Your task to perform on an android device: move a message to another label in the gmail app Image 0: 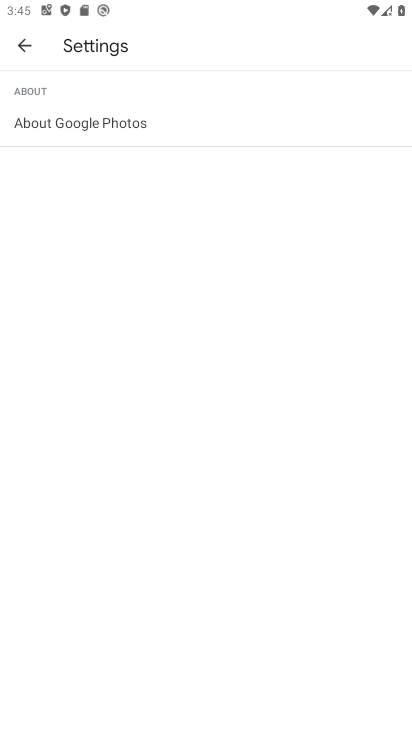
Step 0: press home button
Your task to perform on an android device: move a message to another label in the gmail app Image 1: 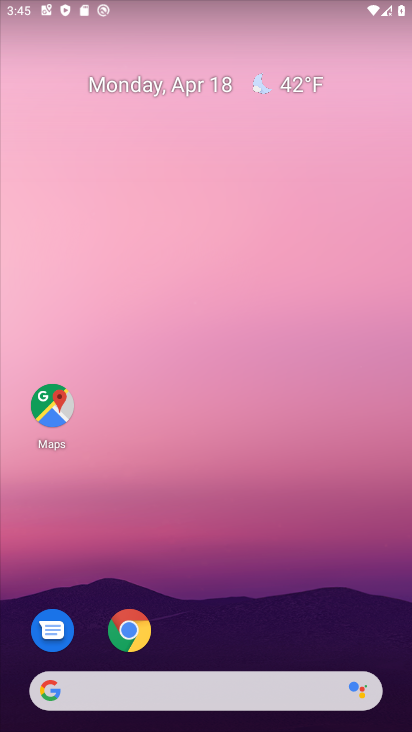
Step 1: drag from (302, 648) to (329, 357)
Your task to perform on an android device: move a message to another label in the gmail app Image 2: 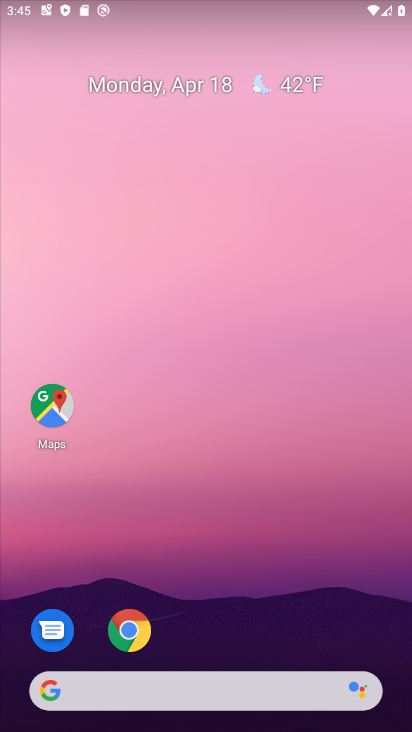
Step 2: drag from (219, 662) to (257, 267)
Your task to perform on an android device: move a message to another label in the gmail app Image 3: 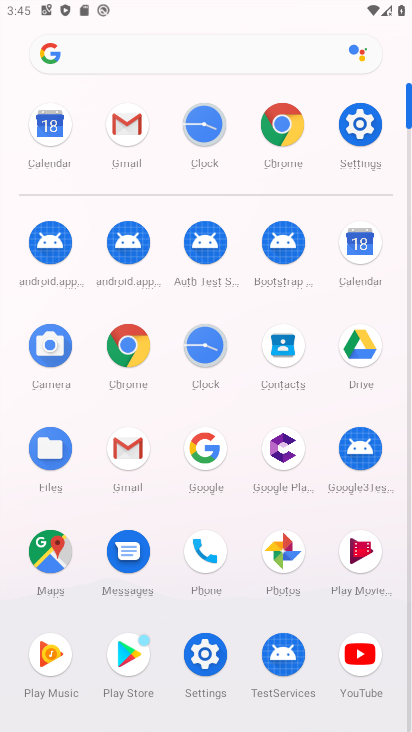
Step 3: click (121, 439)
Your task to perform on an android device: move a message to another label in the gmail app Image 4: 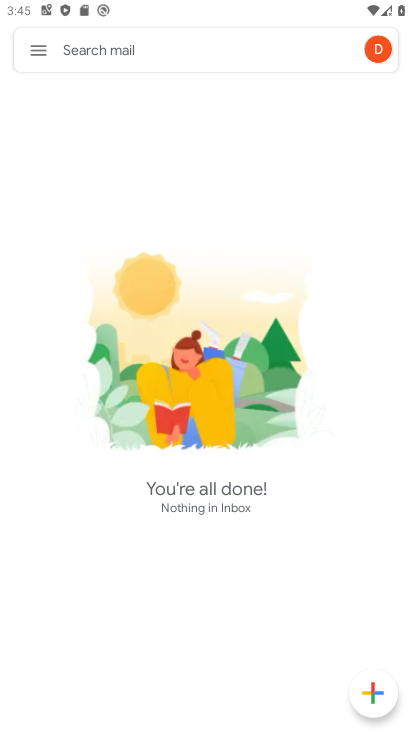
Step 4: click (35, 50)
Your task to perform on an android device: move a message to another label in the gmail app Image 5: 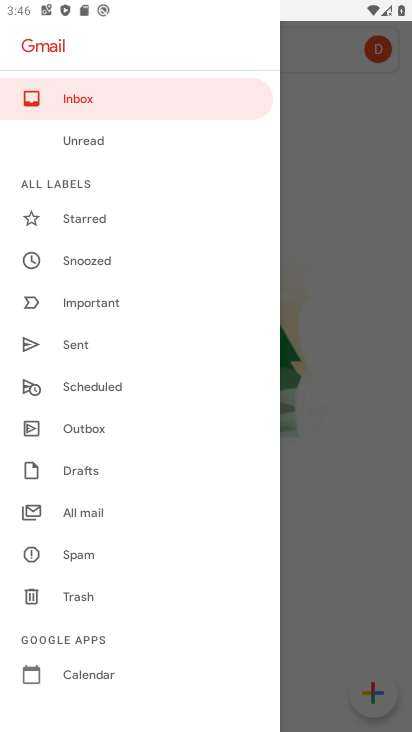
Step 5: click (85, 510)
Your task to perform on an android device: move a message to another label in the gmail app Image 6: 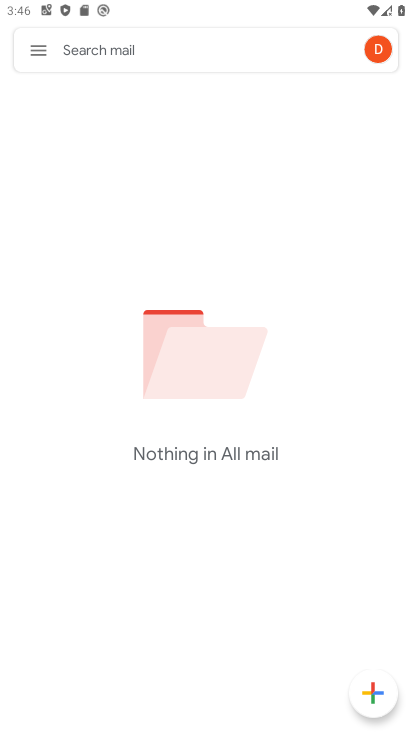
Step 6: task complete